Your task to perform on an android device: Open the web browser Image 0: 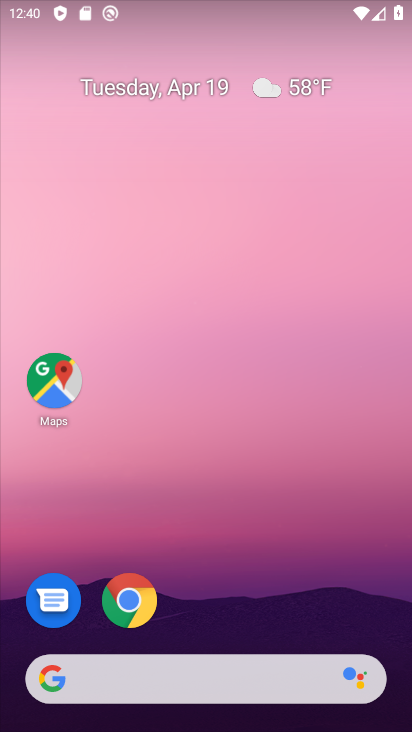
Step 0: click (140, 593)
Your task to perform on an android device: Open the web browser Image 1: 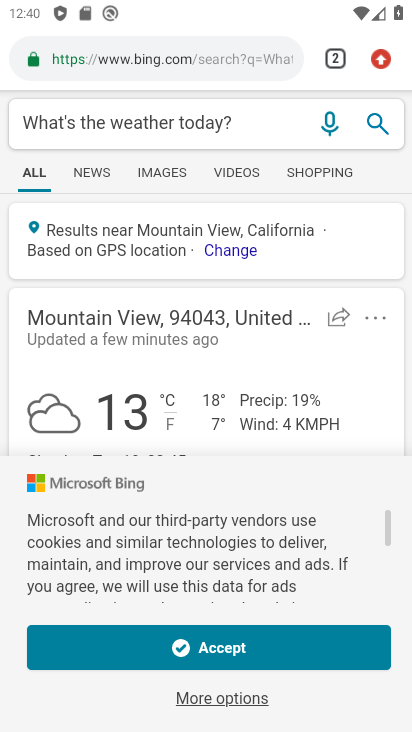
Step 1: task complete